Your task to perform on an android device: Open eBay Image 0: 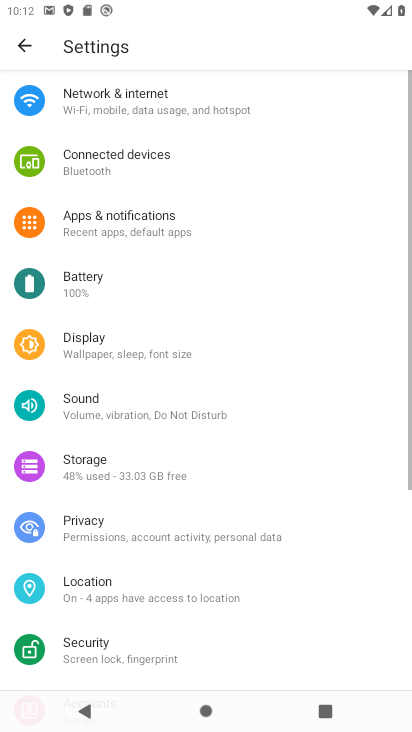
Step 0: press home button
Your task to perform on an android device: Open eBay Image 1: 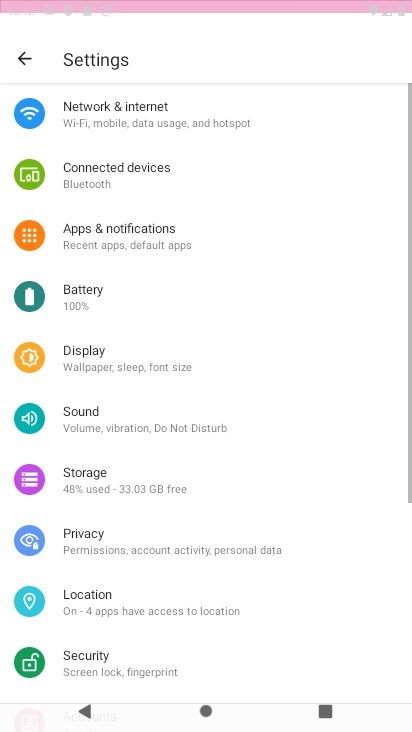
Step 1: drag from (197, 671) to (297, 206)
Your task to perform on an android device: Open eBay Image 2: 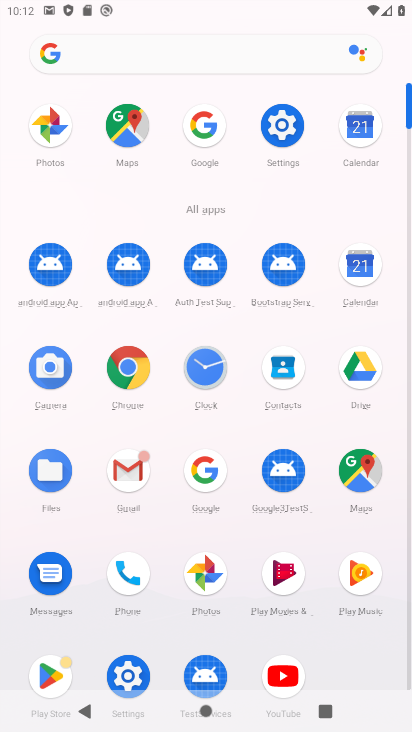
Step 2: click (132, 54)
Your task to perform on an android device: Open eBay Image 3: 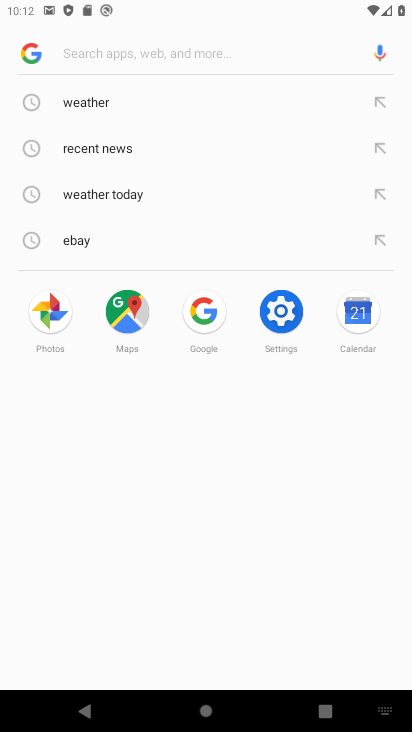
Step 3: click (80, 239)
Your task to perform on an android device: Open eBay Image 4: 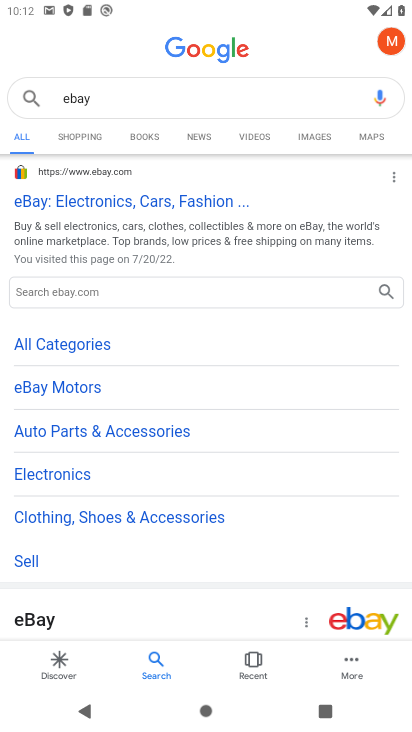
Step 4: click (114, 206)
Your task to perform on an android device: Open eBay Image 5: 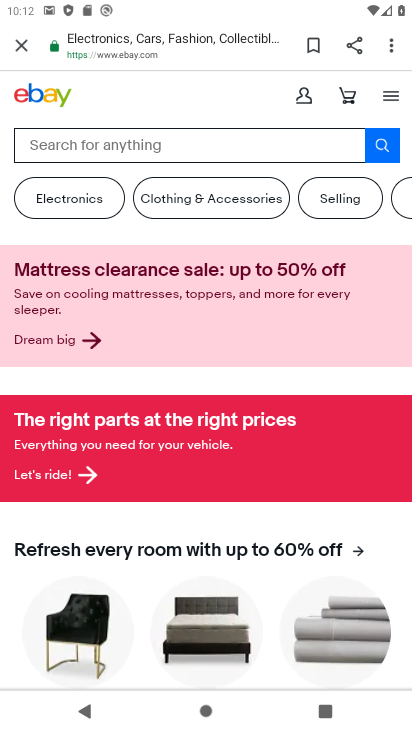
Step 5: task complete